Your task to perform on an android device: Open internet settings Image 0: 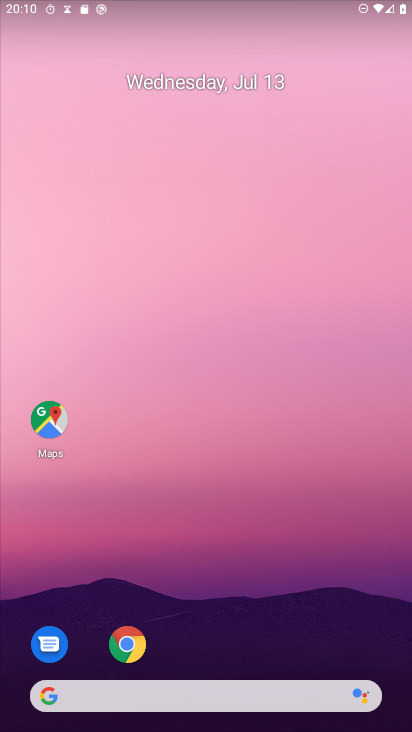
Step 0: drag from (249, 585) to (261, 86)
Your task to perform on an android device: Open internet settings Image 1: 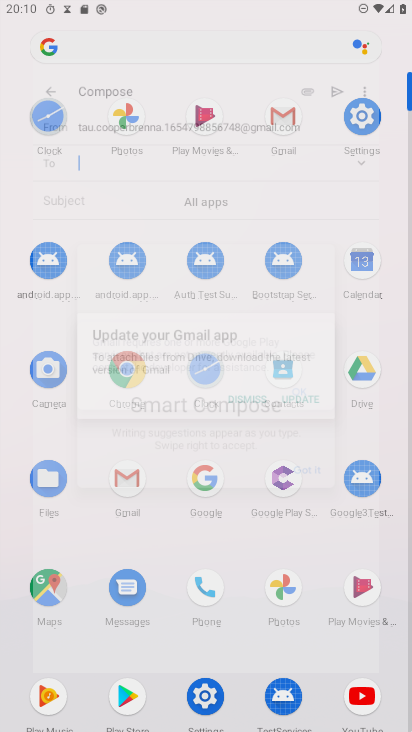
Step 1: click (362, 112)
Your task to perform on an android device: Open internet settings Image 2: 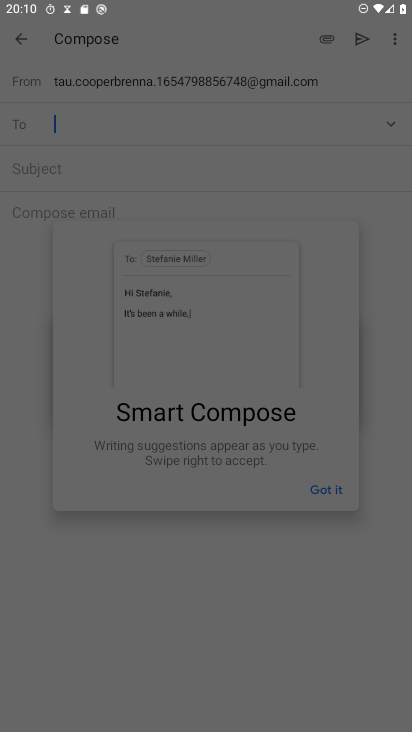
Step 2: press back button
Your task to perform on an android device: Open internet settings Image 3: 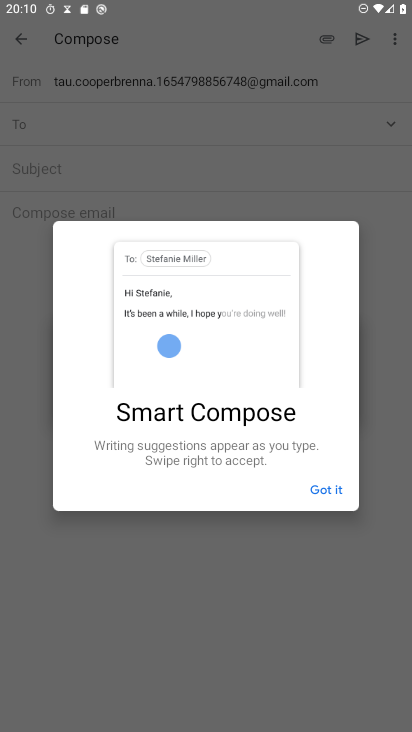
Step 3: press home button
Your task to perform on an android device: Open internet settings Image 4: 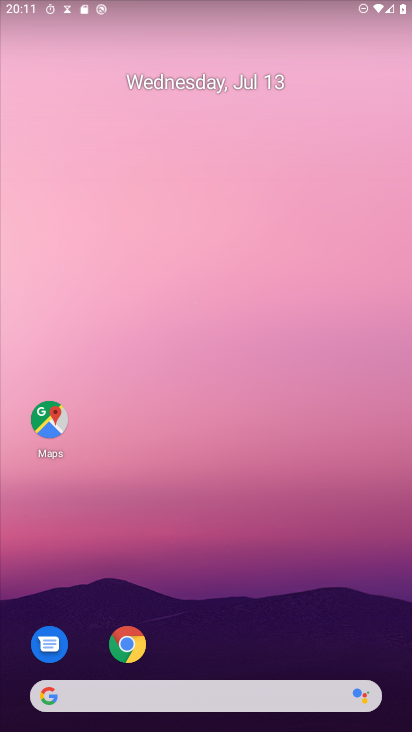
Step 4: drag from (310, 566) to (310, 137)
Your task to perform on an android device: Open internet settings Image 5: 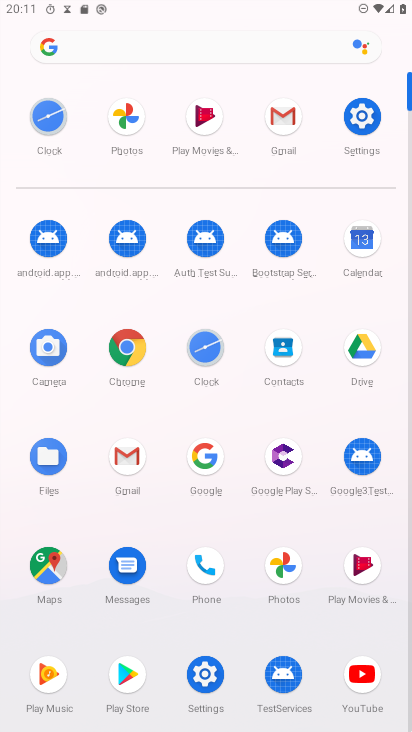
Step 5: click (355, 126)
Your task to perform on an android device: Open internet settings Image 6: 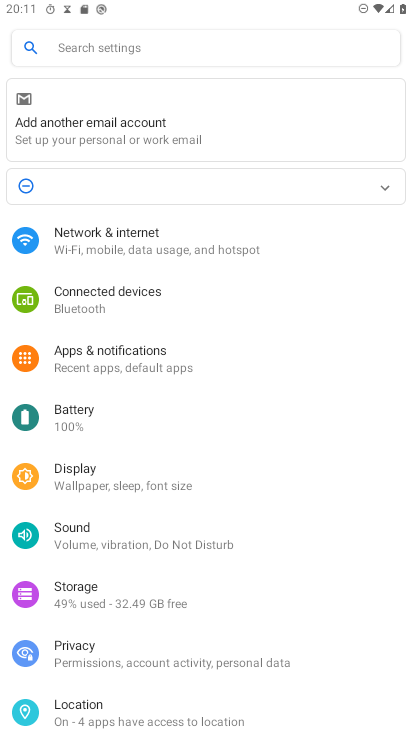
Step 6: click (202, 263)
Your task to perform on an android device: Open internet settings Image 7: 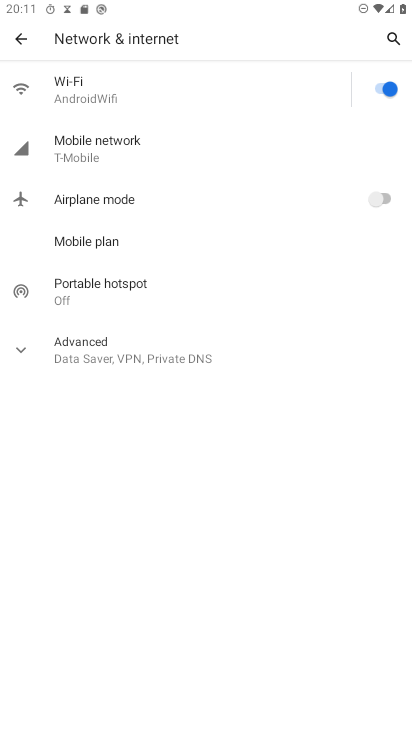
Step 7: click (157, 143)
Your task to perform on an android device: Open internet settings Image 8: 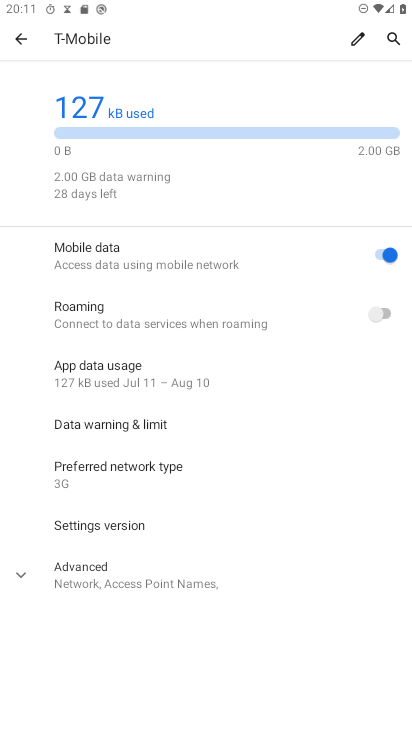
Step 8: task complete